Your task to perform on an android device: Open the Play Movies app and select the watchlist tab. Image 0: 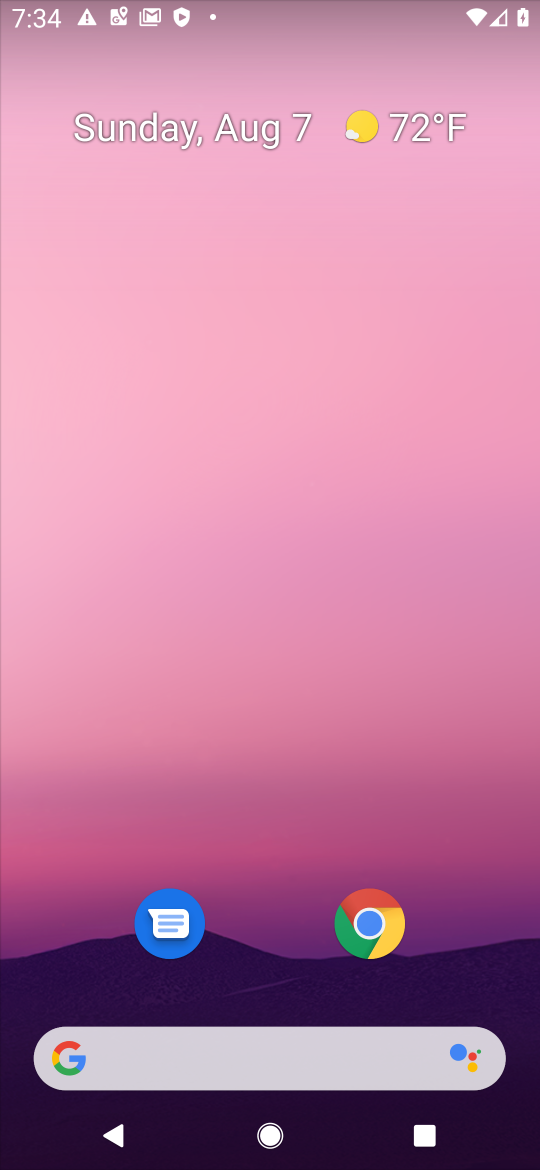
Step 0: drag from (478, 964) to (338, 213)
Your task to perform on an android device: Open the Play Movies app and select the watchlist tab. Image 1: 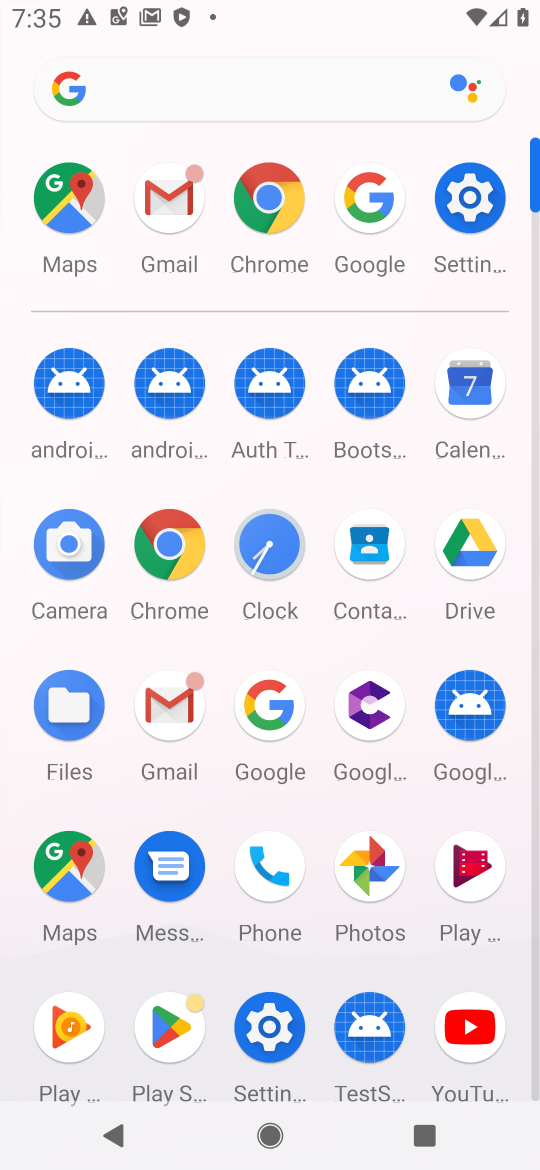
Step 1: click (480, 900)
Your task to perform on an android device: Open the Play Movies app and select the watchlist tab. Image 2: 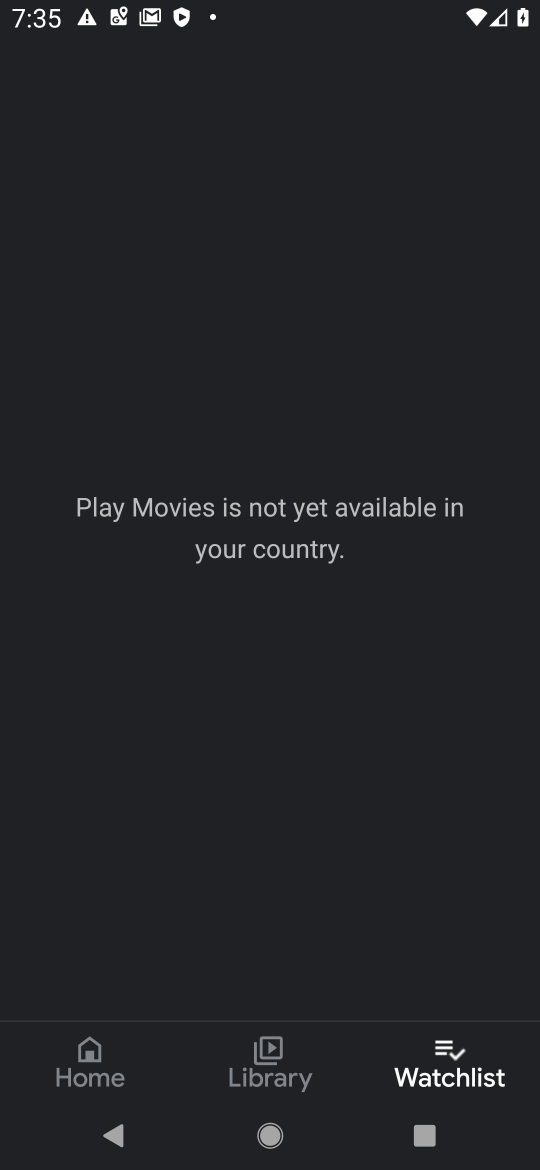
Step 2: task complete